Your task to perform on an android device: turn on showing notifications on the lock screen Image 0: 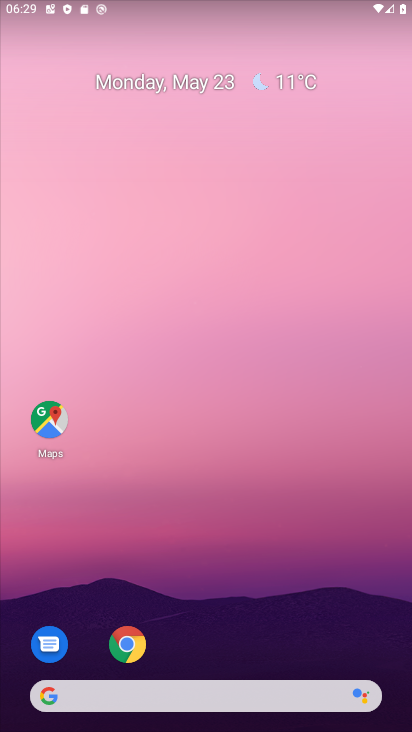
Step 0: drag from (233, 636) to (194, 229)
Your task to perform on an android device: turn on showing notifications on the lock screen Image 1: 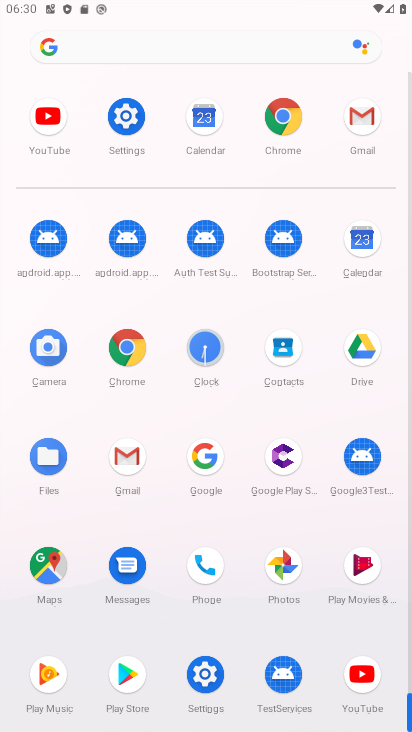
Step 1: click (123, 125)
Your task to perform on an android device: turn on showing notifications on the lock screen Image 2: 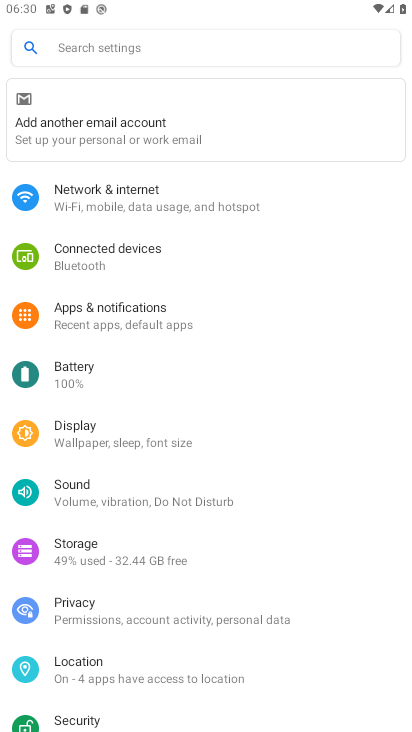
Step 2: click (111, 322)
Your task to perform on an android device: turn on showing notifications on the lock screen Image 3: 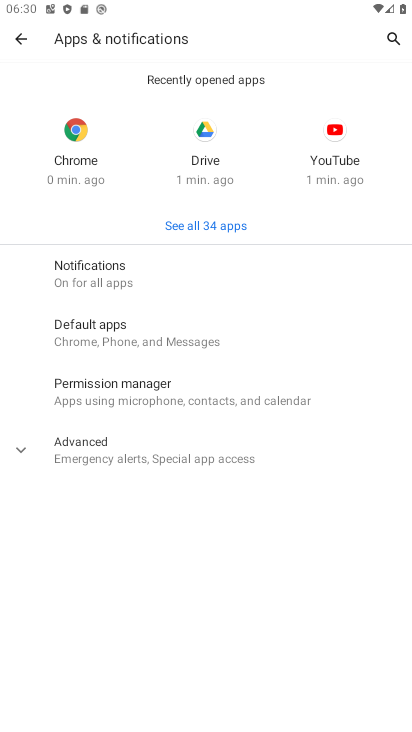
Step 3: click (94, 270)
Your task to perform on an android device: turn on showing notifications on the lock screen Image 4: 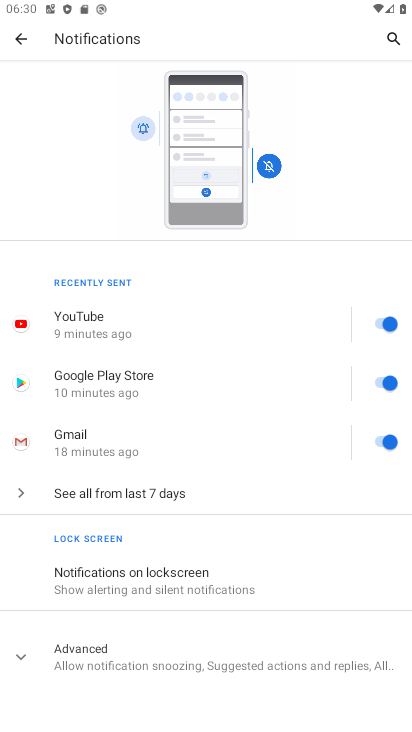
Step 4: click (153, 581)
Your task to perform on an android device: turn on showing notifications on the lock screen Image 5: 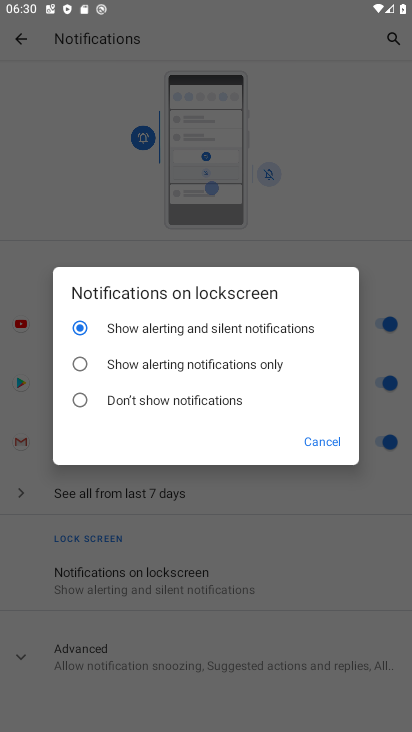
Step 5: task complete